Your task to perform on an android device: Open internet settings Image 0: 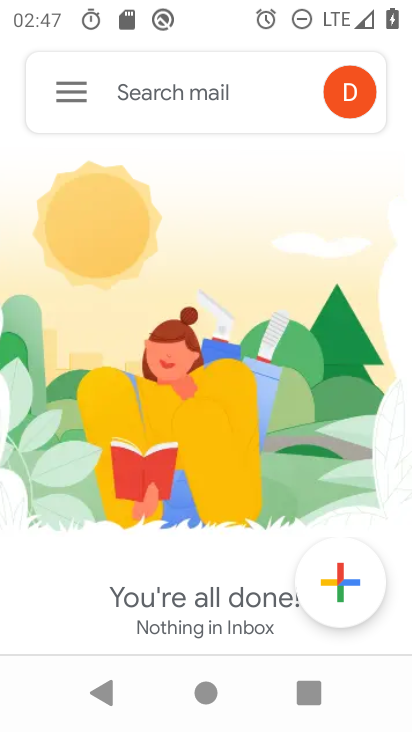
Step 0: press home button
Your task to perform on an android device: Open internet settings Image 1: 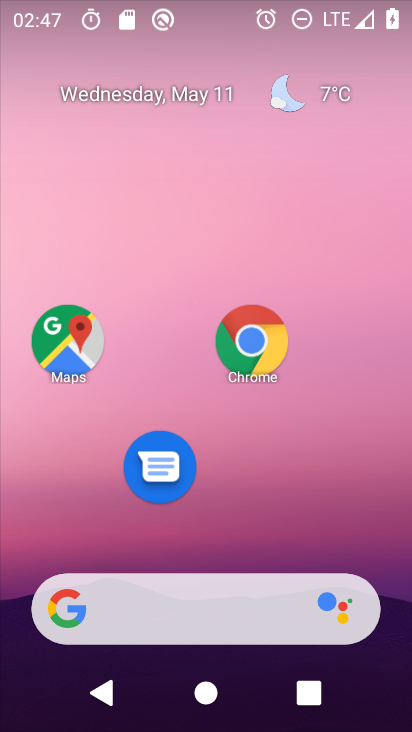
Step 1: drag from (154, 620) to (246, 36)
Your task to perform on an android device: Open internet settings Image 2: 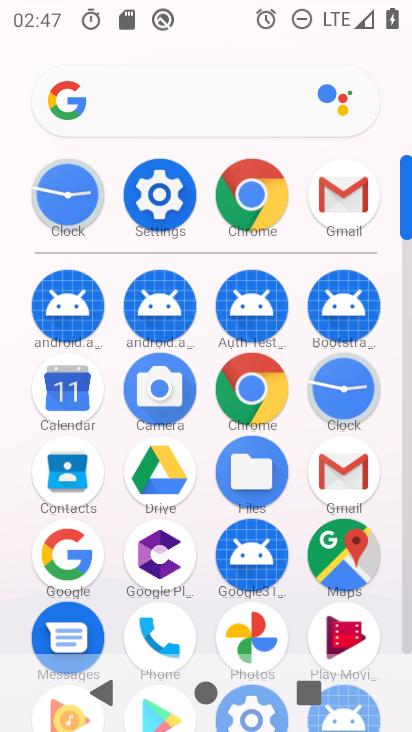
Step 2: click (157, 210)
Your task to perform on an android device: Open internet settings Image 3: 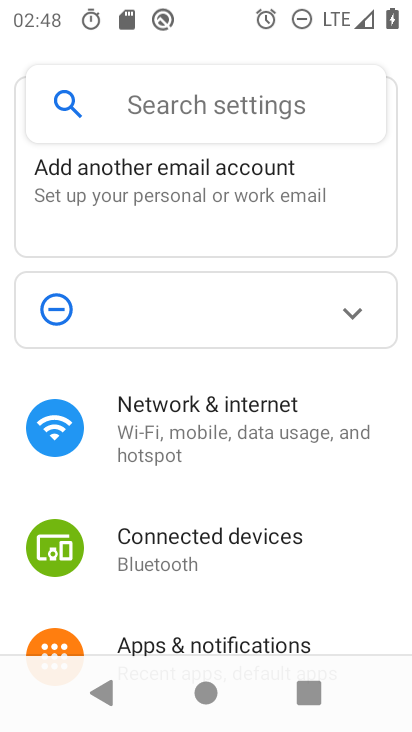
Step 3: click (239, 415)
Your task to perform on an android device: Open internet settings Image 4: 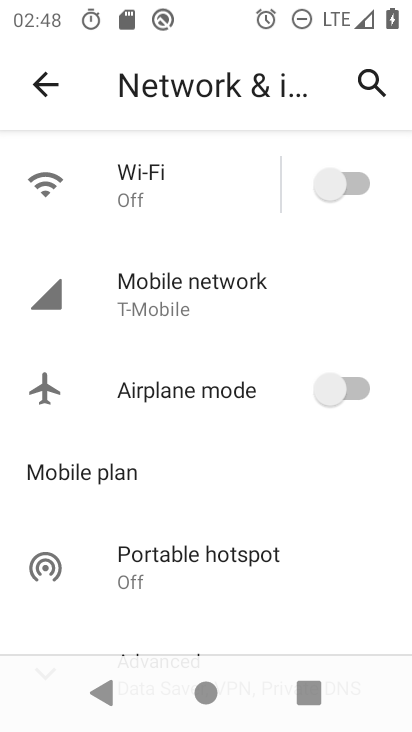
Step 4: task complete